Your task to perform on an android device: install app "Pluto TV - Live TV and Movies" Image 0: 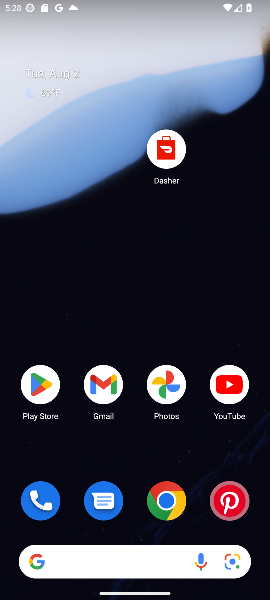
Step 0: click (48, 387)
Your task to perform on an android device: install app "Pluto TV - Live TV and Movies" Image 1: 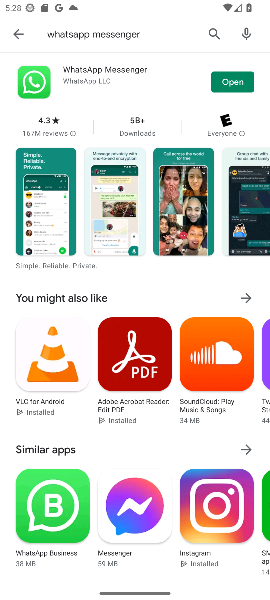
Step 1: click (207, 31)
Your task to perform on an android device: install app "Pluto TV - Live TV and Movies" Image 2: 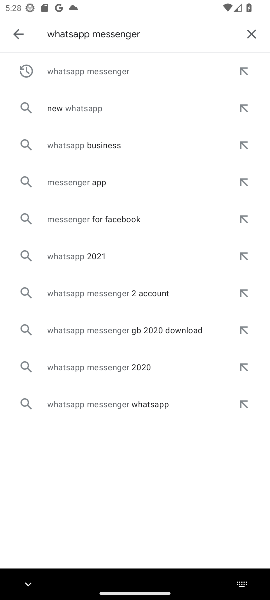
Step 2: click (255, 35)
Your task to perform on an android device: install app "Pluto TV - Live TV and Movies" Image 3: 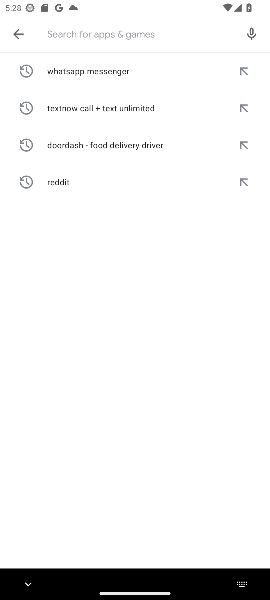
Step 3: type "Pluto TV - Live TV and Movies"
Your task to perform on an android device: install app "Pluto TV - Live TV and Movies" Image 4: 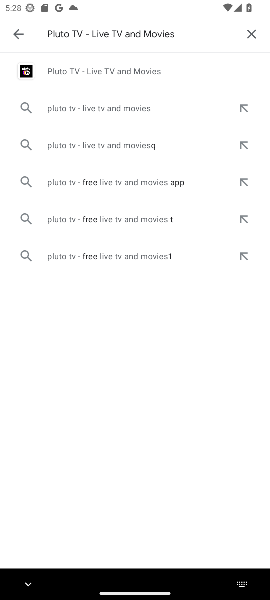
Step 4: click (107, 76)
Your task to perform on an android device: install app "Pluto TV - Live TV and Movies" Image 5: 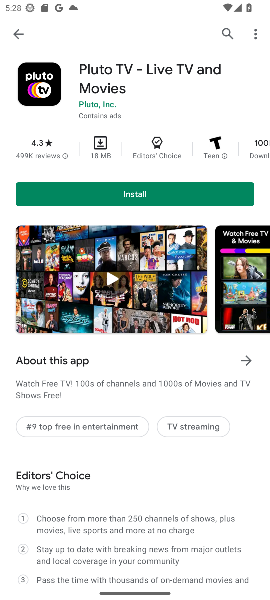
Step 5: click (119, 194)
Your task to perform on an android device: install app "Pluto TV - Live TV and Movies" Image 6: 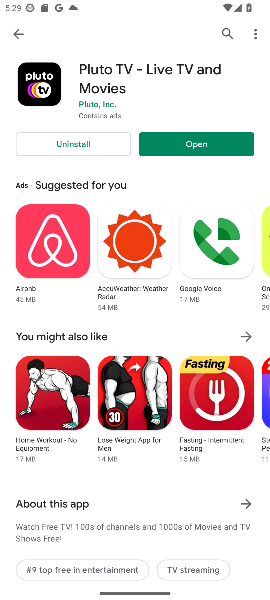
Step 6: task complete